Your task to perform on an android device: Go to eBay Image 0: 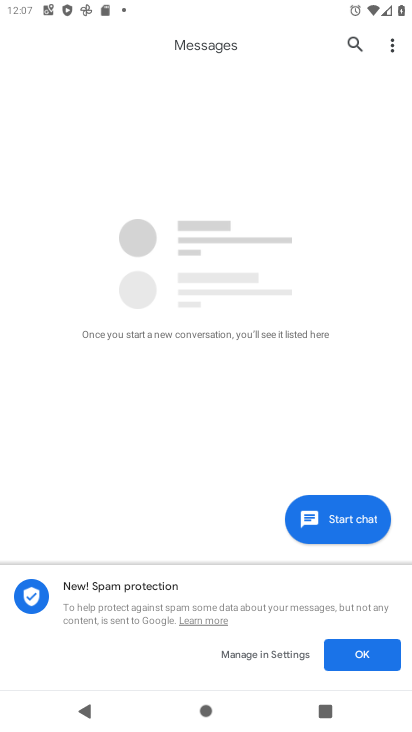
Step 0: press home button
Your task to perform on an android device: Go to eBay Image 1: 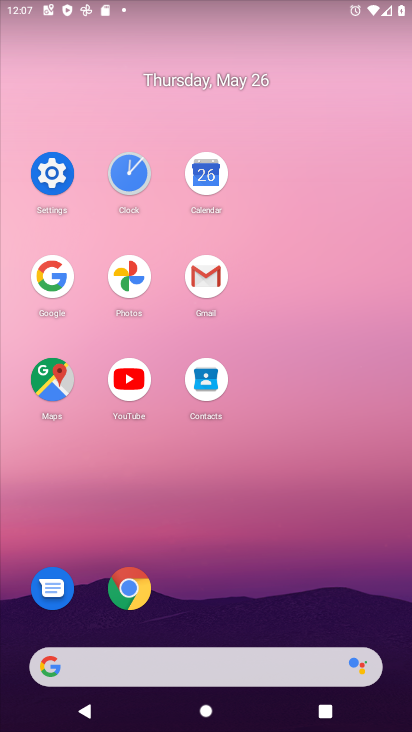
Step 1: click (145, 577)
Your task to perform on an android device: Go to eBay Image 2: 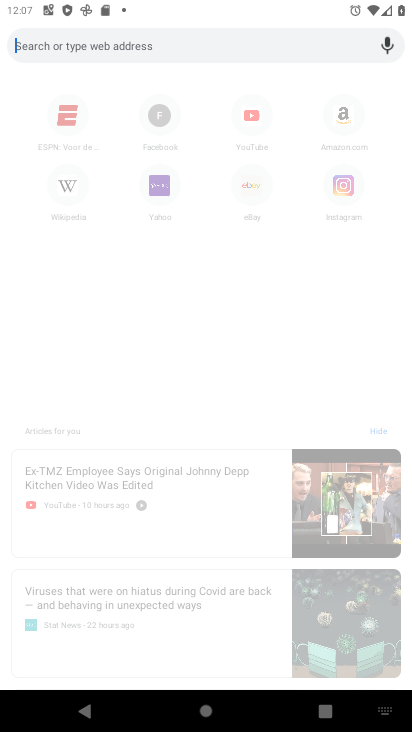
Step 2: click (246, 189)
Your task to perform on an android device: Go to eBay Image 3: 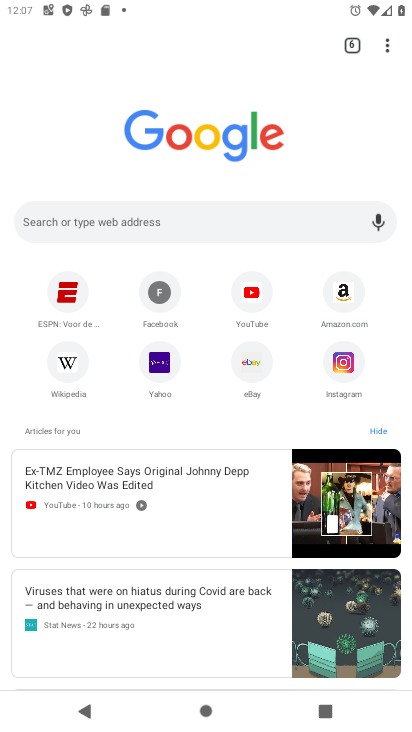
Step 3: click (256, 364)
Your task to perform on an android device: Go to eBay Image 4: 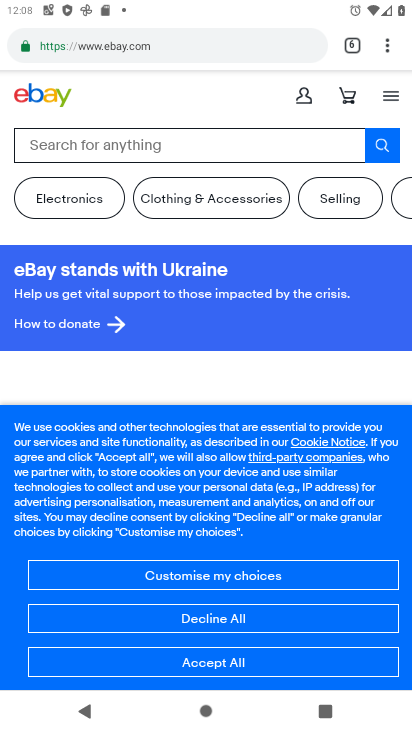
Step 4: task complete